Your task to perform on an android device: turn on translation in the chrome app Image 0: 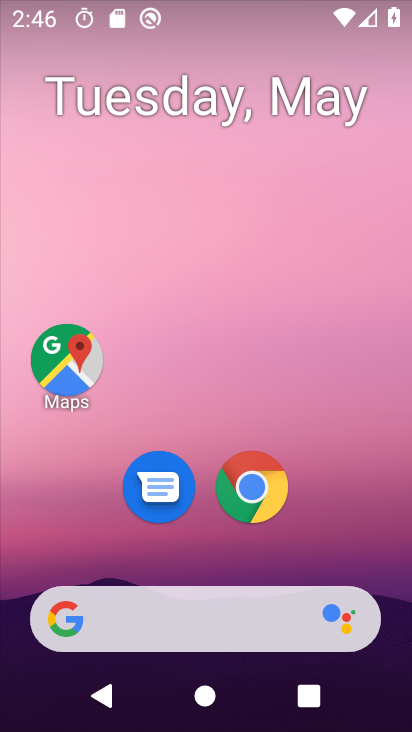
Step 0: click (246, 495)
Your task to perform on an android device: turn on translation in the chrome app Image 1: 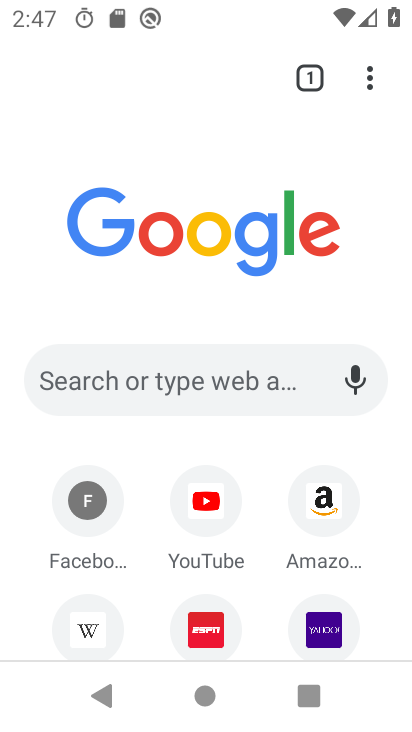
Step 1: click (364, 75)
Your task to perform on an android device: turn on translation in the chrome app Image 2: 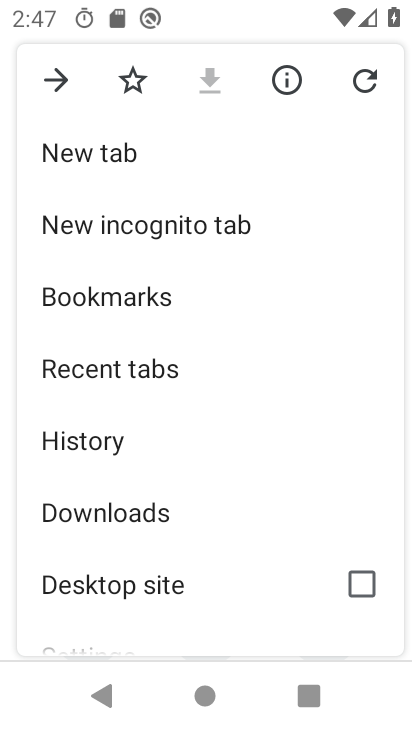
Step 2: drag from (272, 414) to (266, 210)
Your task to perform on an android device: turn on translation in the chrome app Image 3: 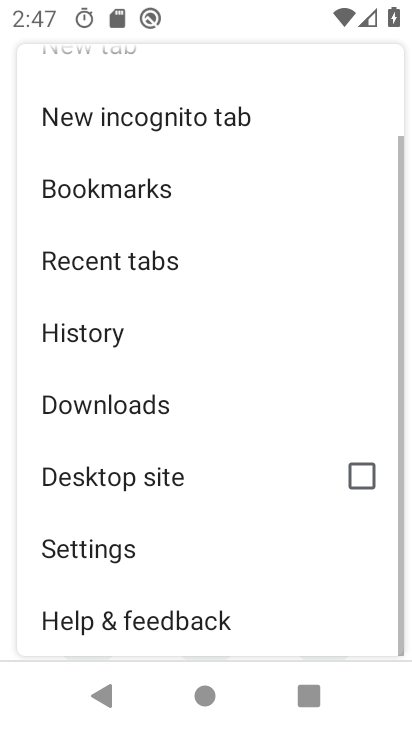
Step 3: click (109, 552)
Your task to perform on an android device: turn on translation in the chrome app Image 4: 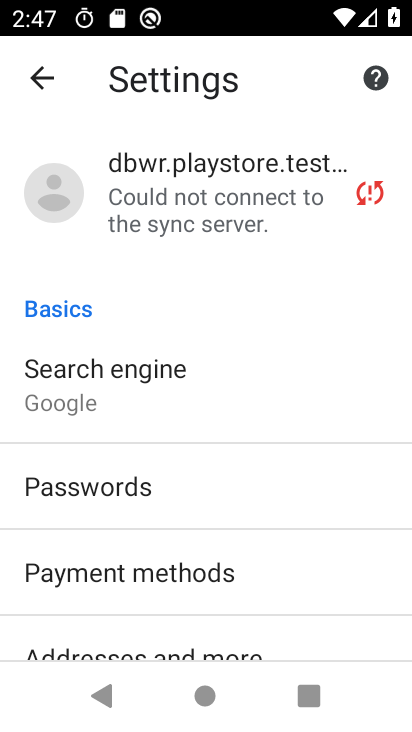
Step 4: drag from (308, 647) to (265, 400)
Your task to perform on an android device: turn on translation in the chrome app Image 5: 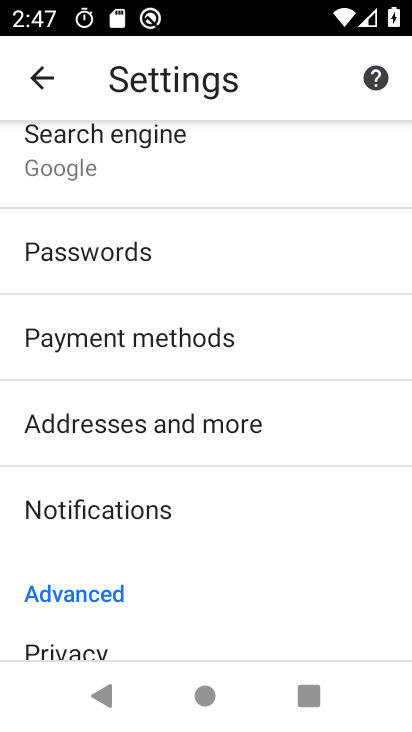
Step 5: drag from (307, 554) to (326, 426)
Your task to perform on an android device: turn on translation in the chrome app Image 6: 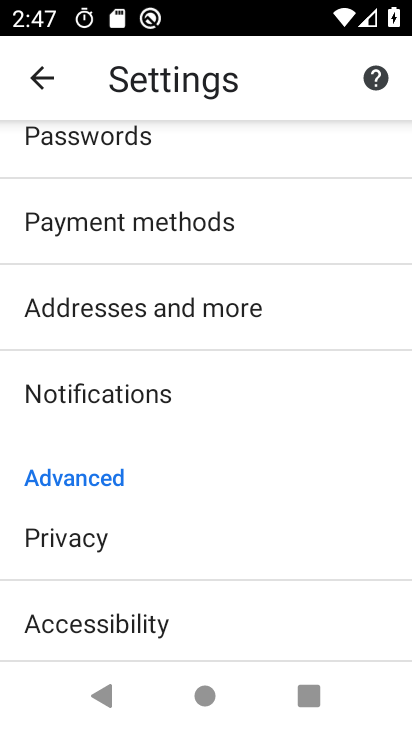
Step 6: drag from (310, 618) to (305, 332)
Your task to perform on an android device: turn on translation in the chrome app Image 7: 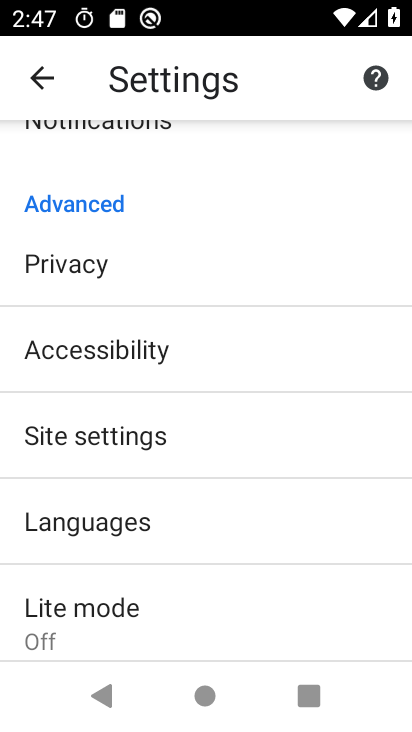
Step 7: click (86, 523)
Your task to perform on an android device: turn on translation in the chrome app Image 8: 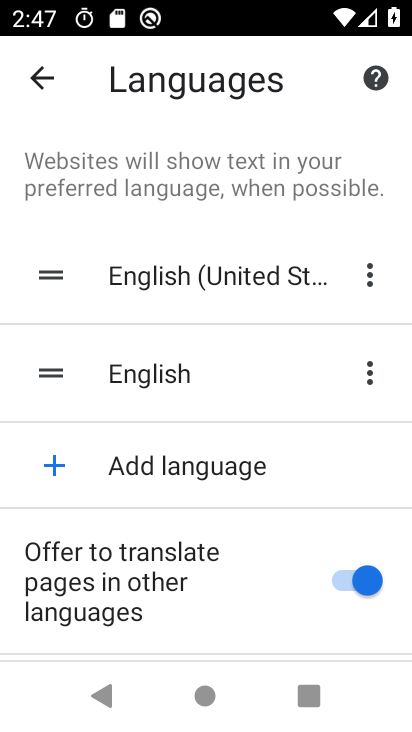
Step 8: task complete